Your task to perform on an android device: make emails show in primary in the gmail app Image 0: 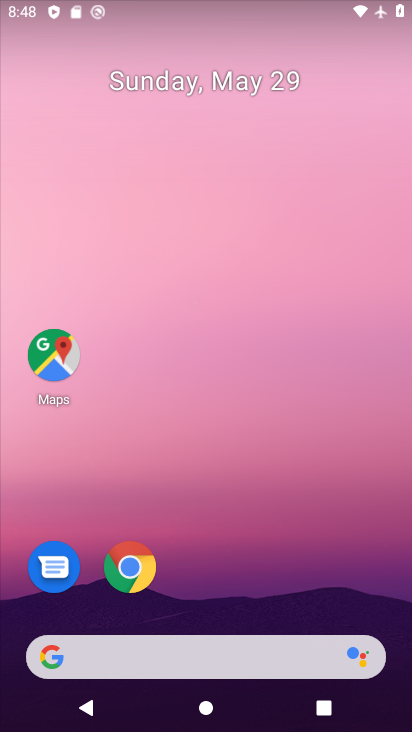
Step 0: drag from (397, 614) to (336, 82)
Your task to perform on an android device: make emails show in primary in the gmail app Image 1: 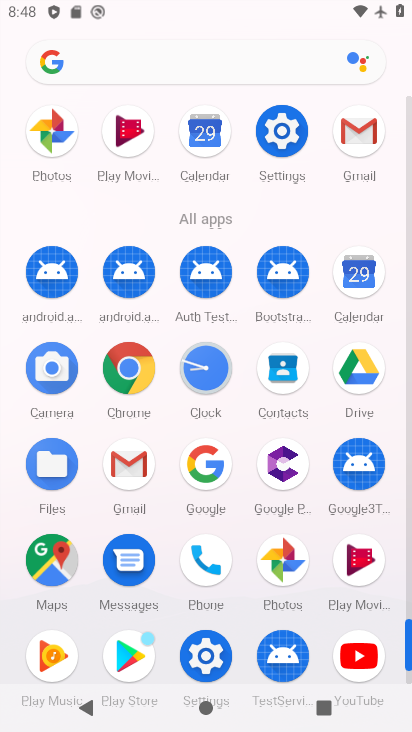
Step 1: click (127, 465)
Your task to perform on an android device: make emails show in primary in the gmail app Image 2: 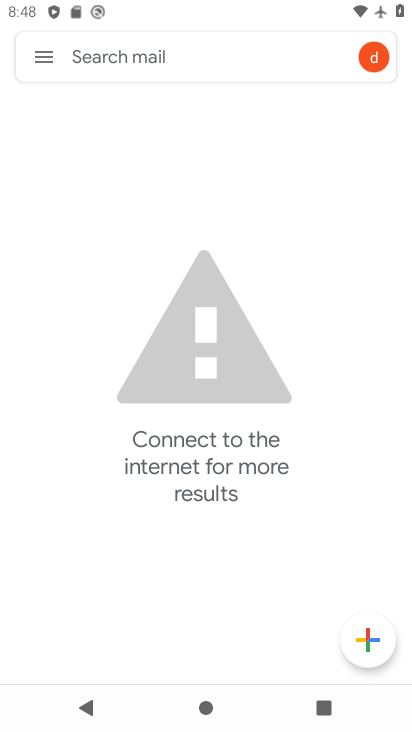
Step 2: click (41, 57)
Your task to perform on an android device: make emails show in primary in the gmail app Image 3: 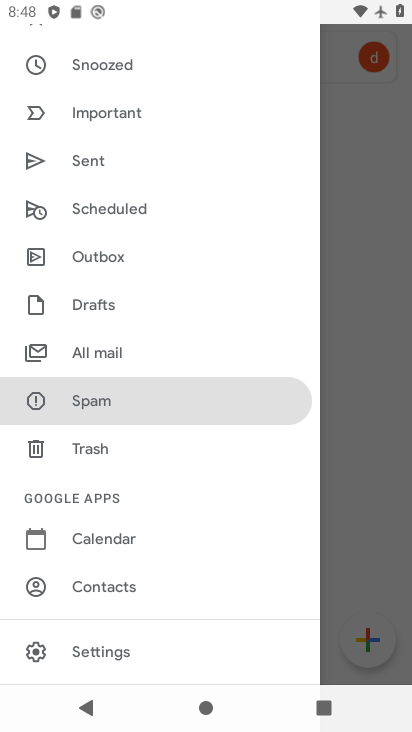
Step 3: click (101, 649)
Your task to perform on an android device: make emails show in primary in the gmail app Image 4: 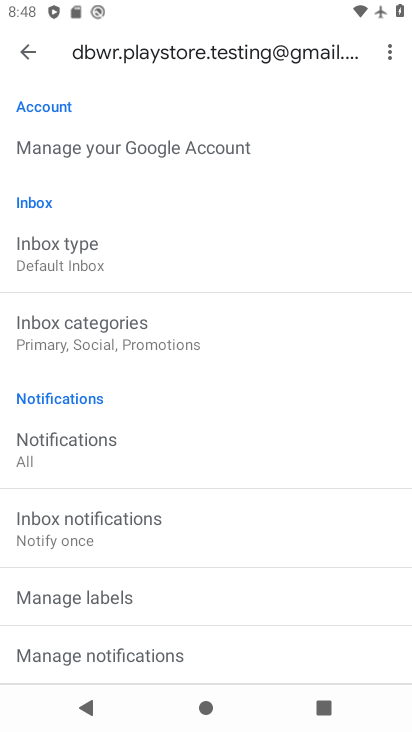
Step 4: click (73, 246)
Your task to perform on an android device: make emails show in primary in the gmail app Image 5: 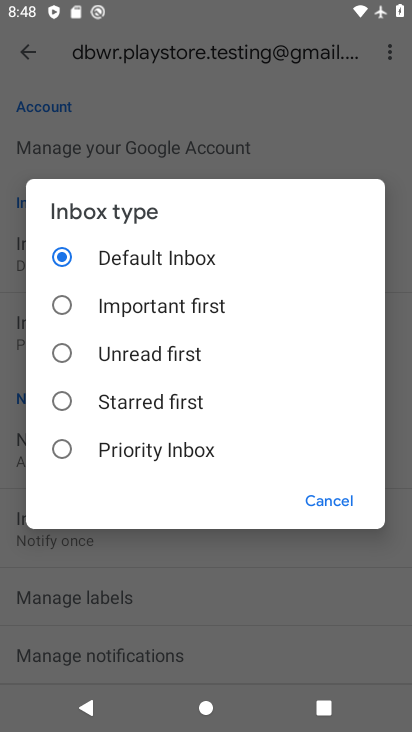
Step 5: click (320, 503)
Your task to perform on an android device: make emails show in primary in the gmail app Image 6: 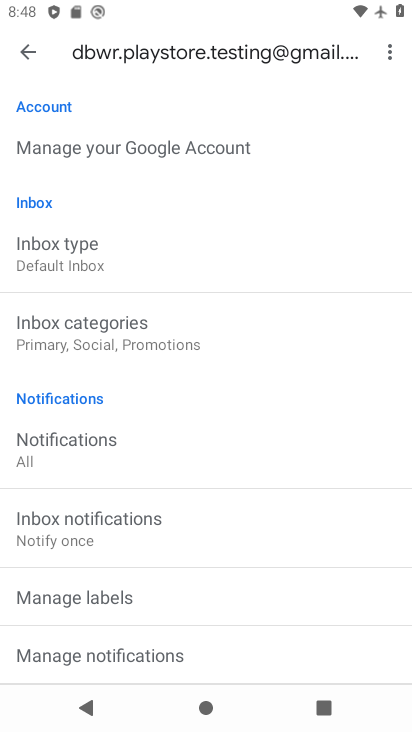
Step 6: click (92, 332)
Your task to perform on an android device: make emails show in primary in the gmail app Image 7: 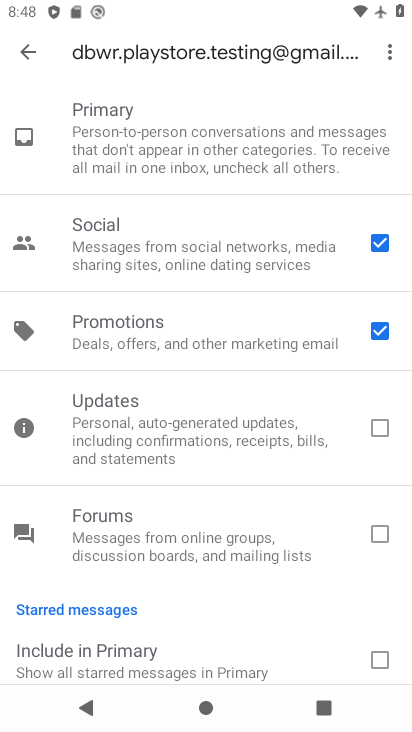
Step 7: click (380, 324)
Your task to perform on an android device: make emails show in primary in the gmail app Image 8: 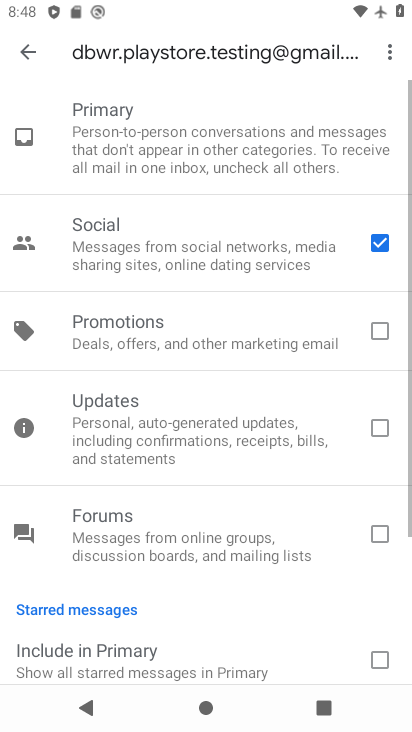
Step 8: click (381, 237)
Your task to perform on an android device: make emails show in primary in the gmail app Image 9: 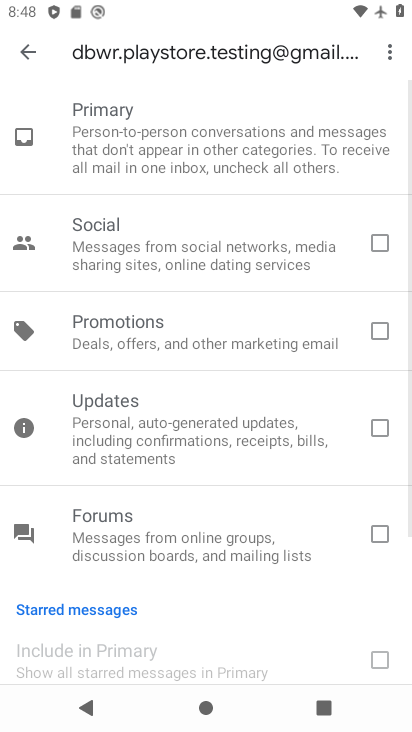
Step 9: task complete